Your task to perform on an android device: star an email in the gmail app Image 0: 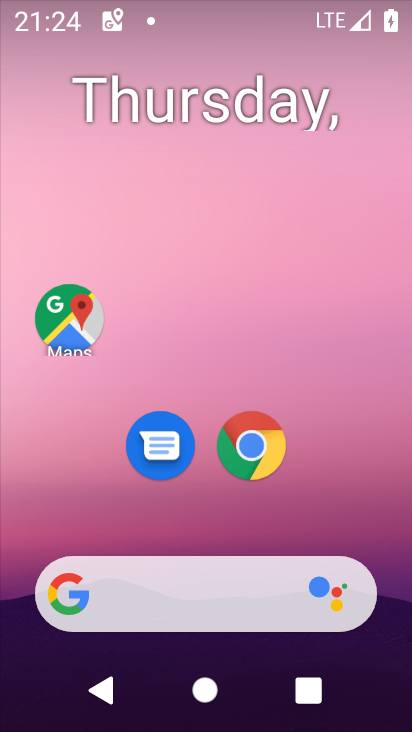
Step 0: drag from (182, 544) to (396, 11)
Your task to perform on an android device: star an email in the gmail app Image 1: 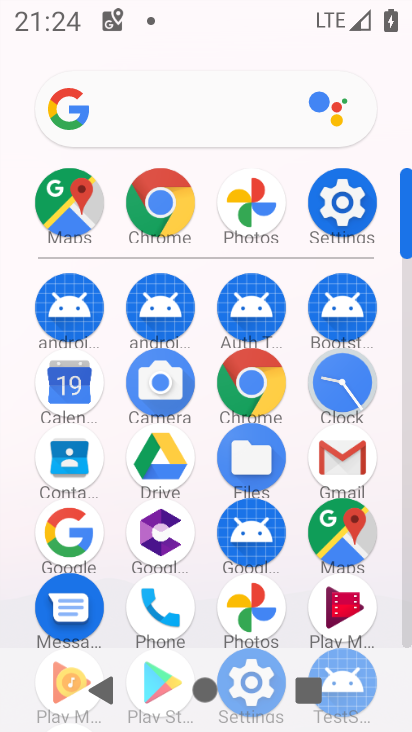
Step 1: click (335, 455)
Your task to perform on an android device: star an email in the gmail app Image 2: 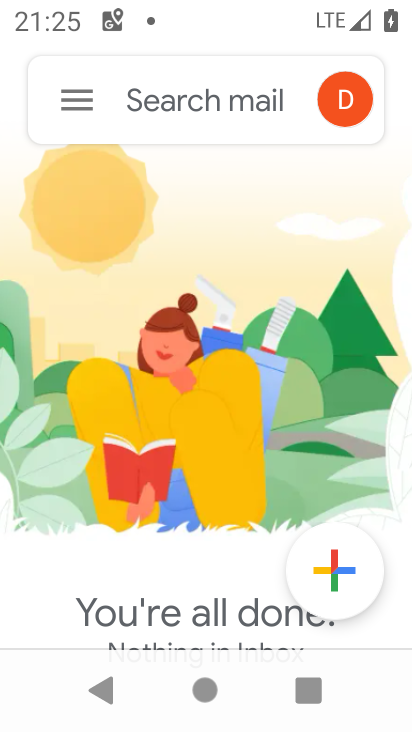
Step 2: task complete